Your task to perform on an android device: see tabs open on other devices in the chrome app Image 0: 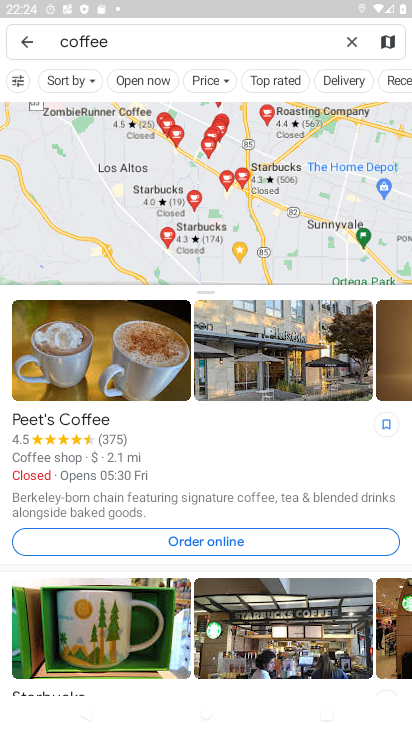
Step 0: press home button
Your task to perform on an android device: see tabs open on other devices in the chrome app Image 1: 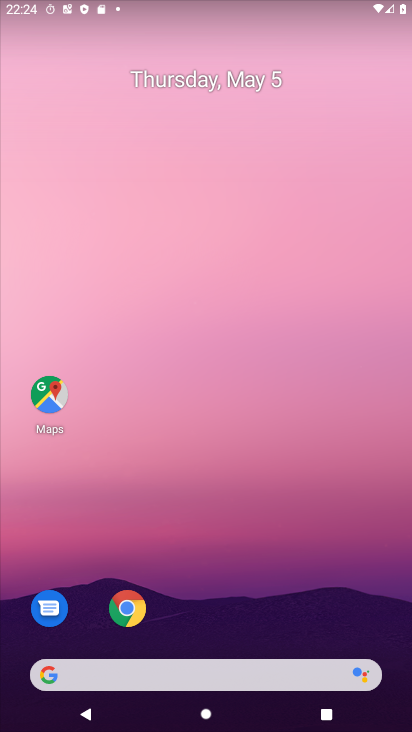
Step 1: drag from (268, 648) to (311, 21)
Your task to perform on an android device: see tabs open on other devices in the chrome app Image 2: 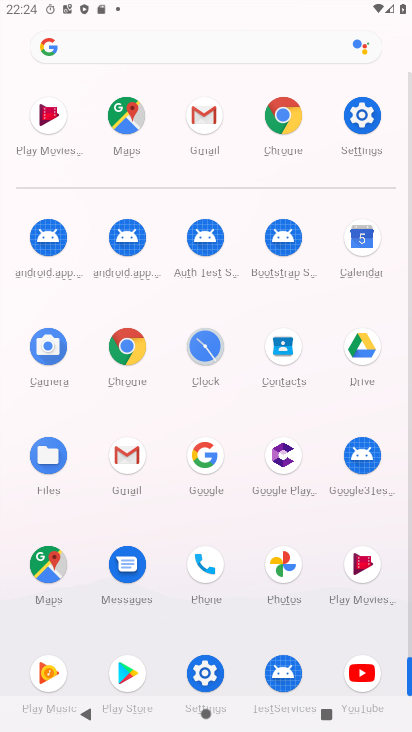
Step 2: click (129, 353)
Your task to perform on an android device: see tabs open on other devices in the chrome app Image 3: 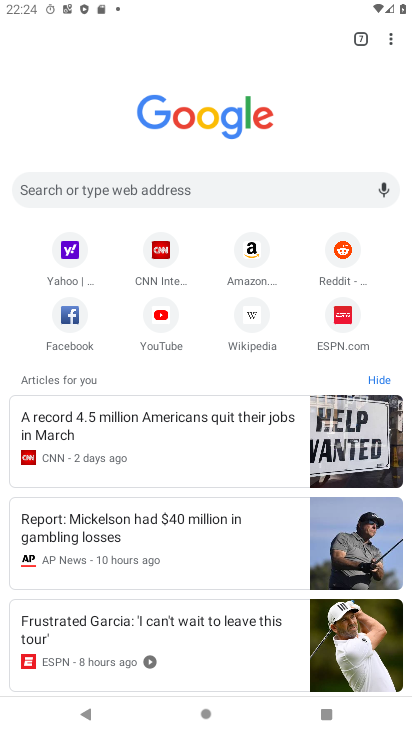
Step 3: click (387, 37)
Your task to perform on an android device: see tabs open on other devices in the chrome app Image 4: 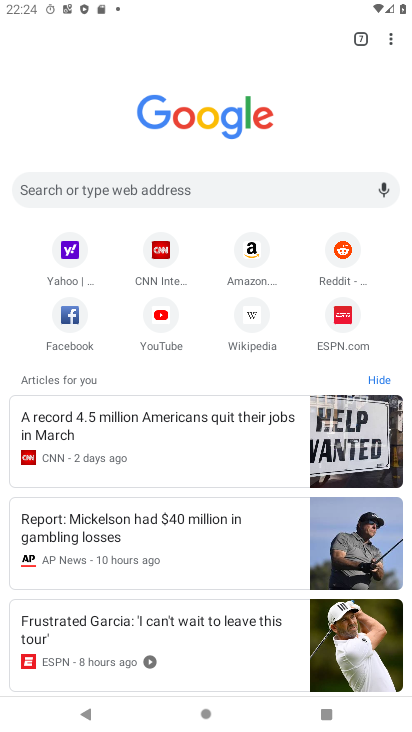
Step 4: task complete